Your task to perform on an android device: Search for pizza restaurants on Maps Image 0: 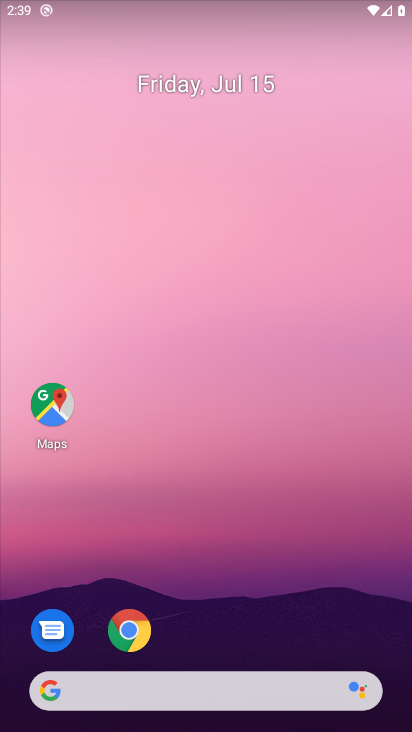
Step 0: click (52, 403)
Your task to perform on an android device: Search for pizza restaurants on Maps Image 1: 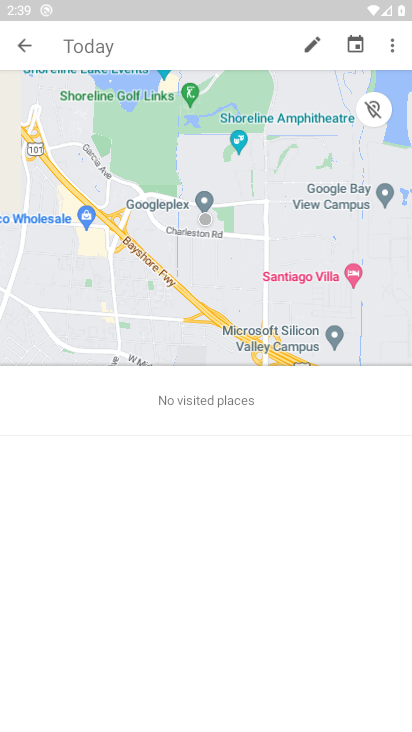
Step 1: type " pizza restaurants"
Your task to perform on an android device: Search for pizza restaurants on Maps Image 2: 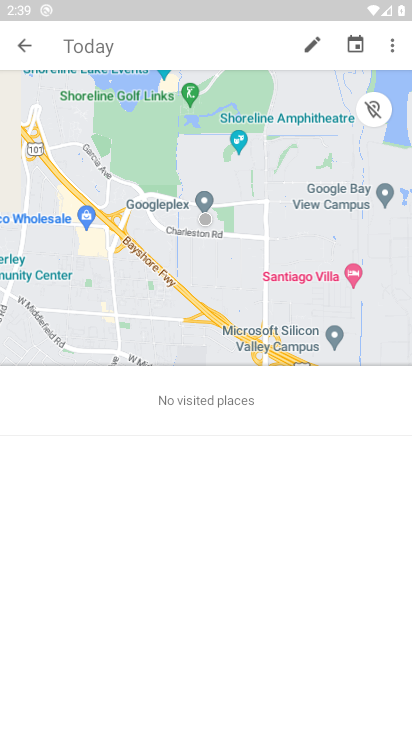
Step 2: click (73, 47)
Your task to perform on an android device: Search for pizza restaurants on Maps Image 3: 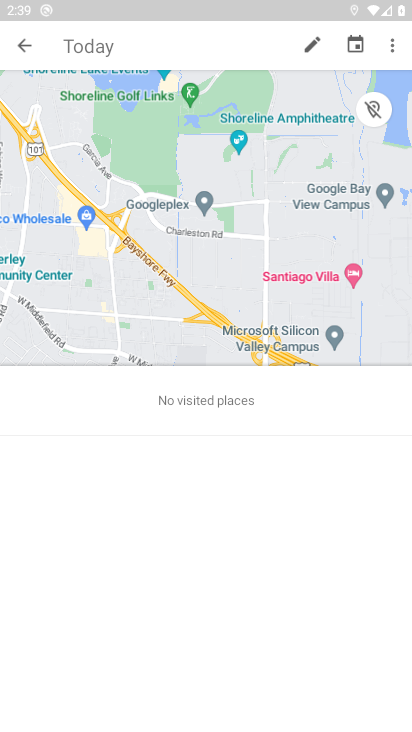
Step 3: click (99, 48)
Your task to perform on an android device: Search for pizza restaurants on Maps Image 4: 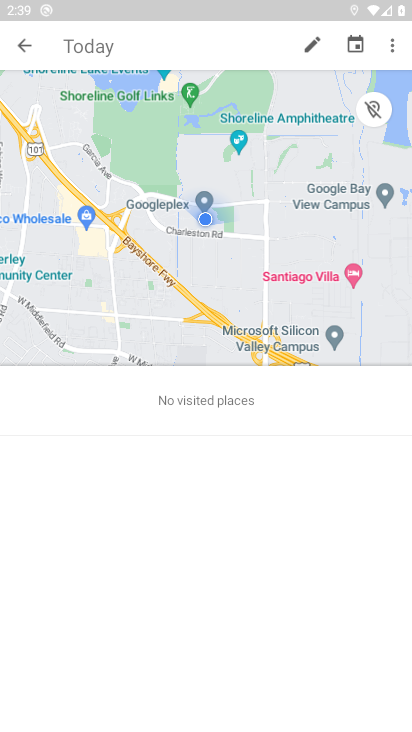
Step 4: click (72, 47)
Your task to perform on an android device: Search for pizza restaurants on Maps Image 5: 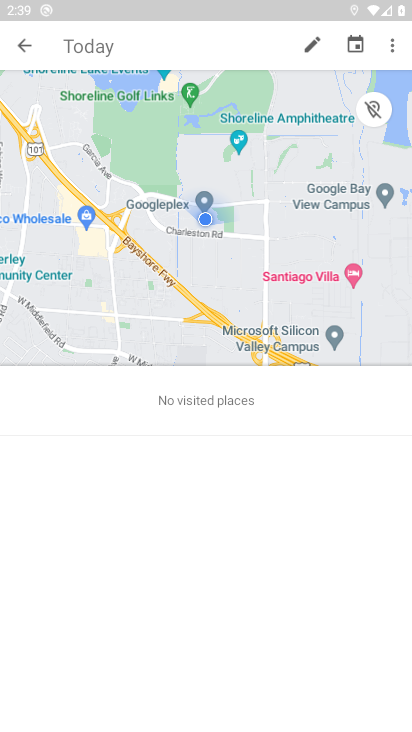
Step 5: click (21, 51)
Your task to perform on an android device: Search for pizza restaurants on Maps Image 6: 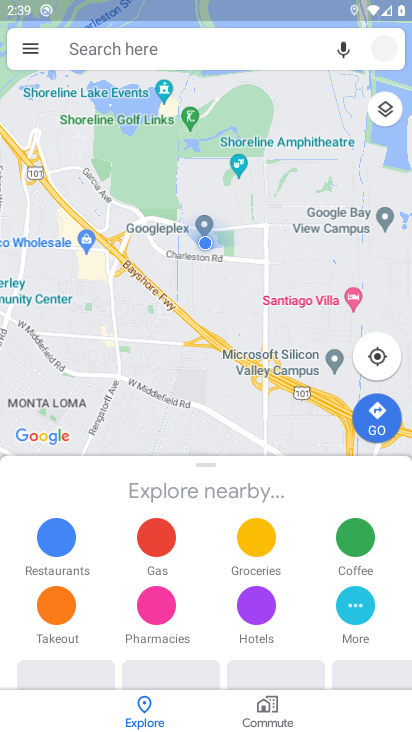
Step 6: click (97, 54)
Your task to perform on an android device: Search for pizza restaurants on Maps Image 7: 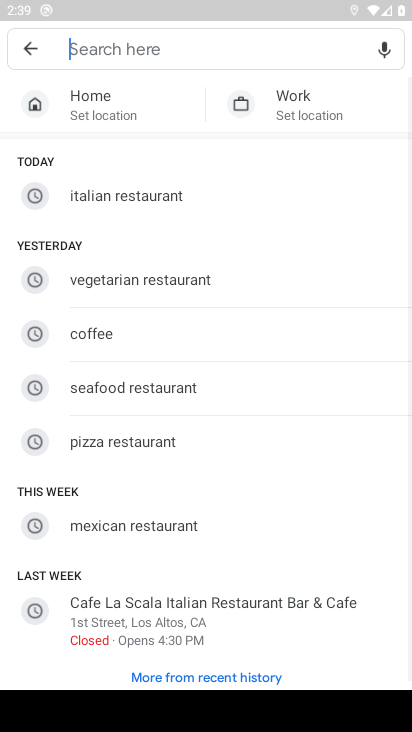
Step 7: type "pizza restaurants"
Your task to perform on an android device: Search for pizza restaurants on Maps Image 8: 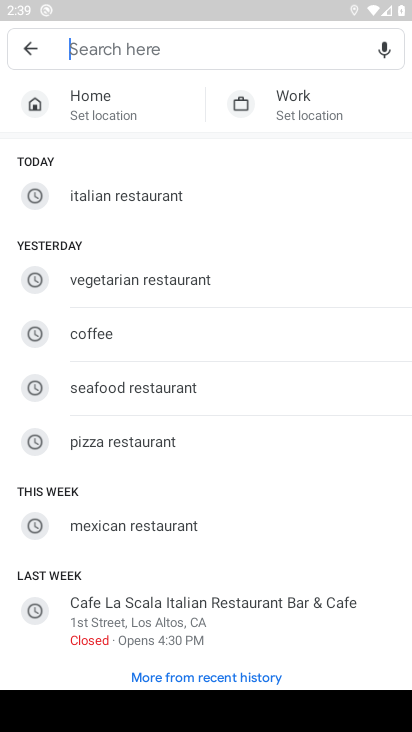
Step 8: click (99, 52)
Your task to perform on an android device: Search for pizza restaurants on Maps Image 9: 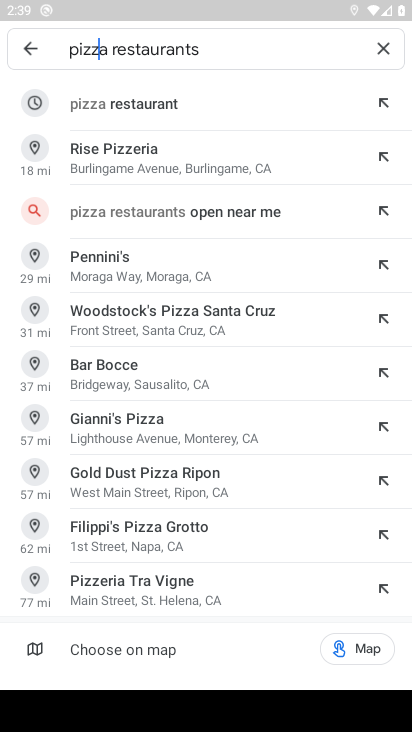
Step 9: press enter
Your task to perform on an android device: Search for pizza restaurants on Maps Image 10: 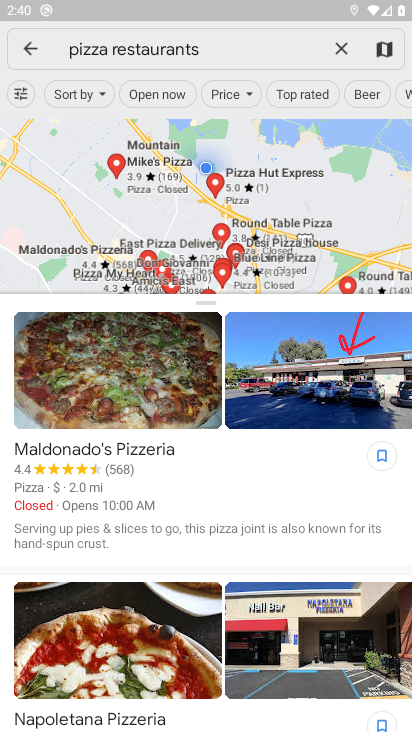
Step 10: task complete